Your task to perform on an android device: turn on javascript in the chrome app Image 0: 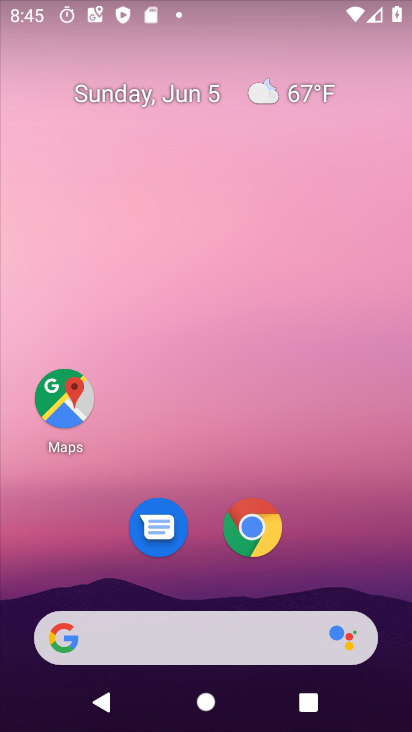
Step 0: click (256, 537)
Your task to perform on an android device: turn on javascript in the chrome app Image 1: 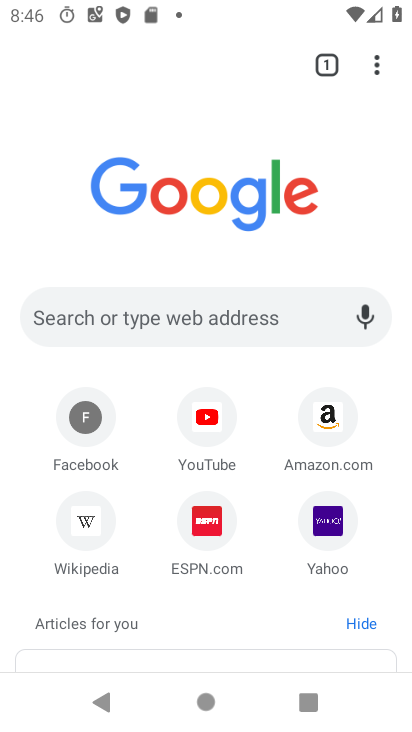
Step 1: click (377, 68)
Your task to perform on an android device: turn on javascript in the chrome app Image 2: 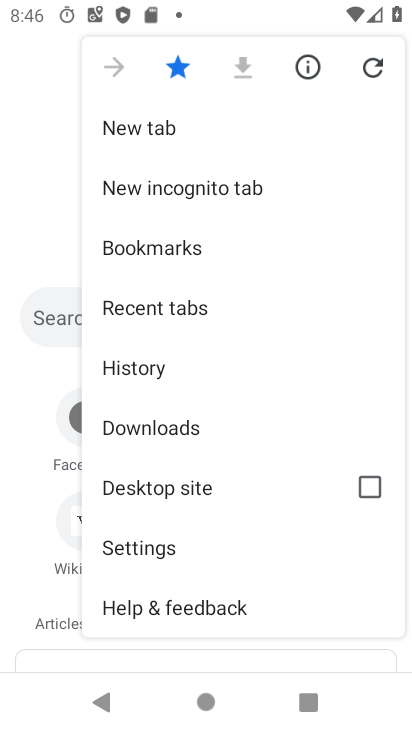
Step 2: click (151, 551)
Your task to perform on an android device: turn on javascript in the chrome app Image 3: 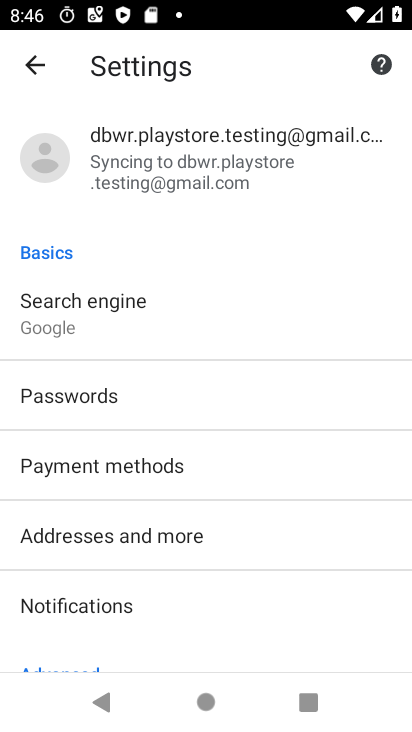
Step 3: drag from (196, 660) to (192, 230)
Your task to perform on an android device: turn on javascript in the chrome app Image 4: 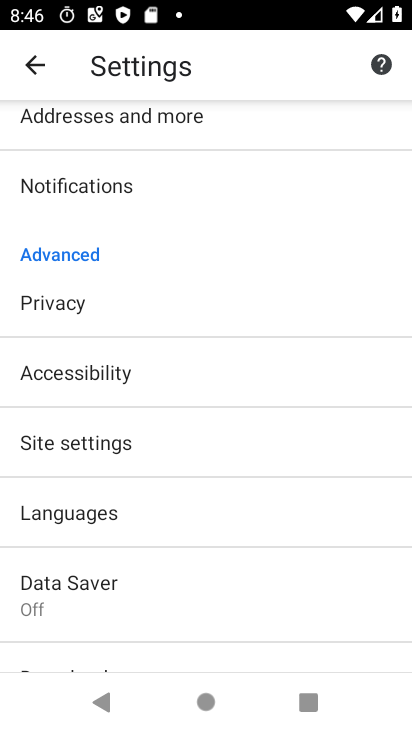
Step 4: click (53, 440)
Your task to perform on an android device: turn on javascript in the chrome app Image 5: 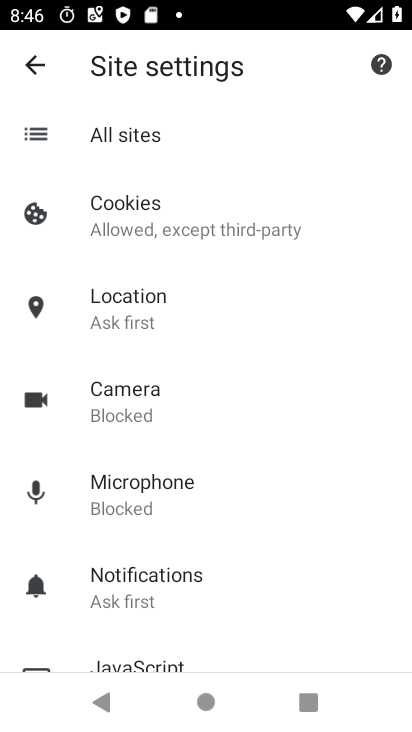
Step 5: drag from (247, 635) to (243, 327)
Your task to perform on an android device: turn on javascript in the chrome app Image 6: 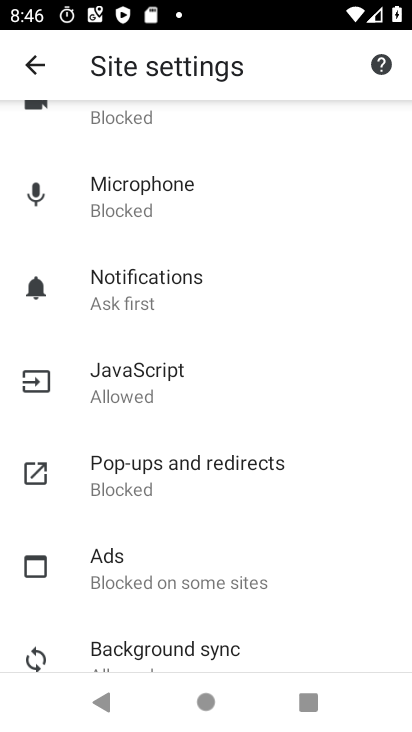
Step 6: click (113, 383)
Your task to perform on an android device: turn on javascript in the chrome app Image 7: 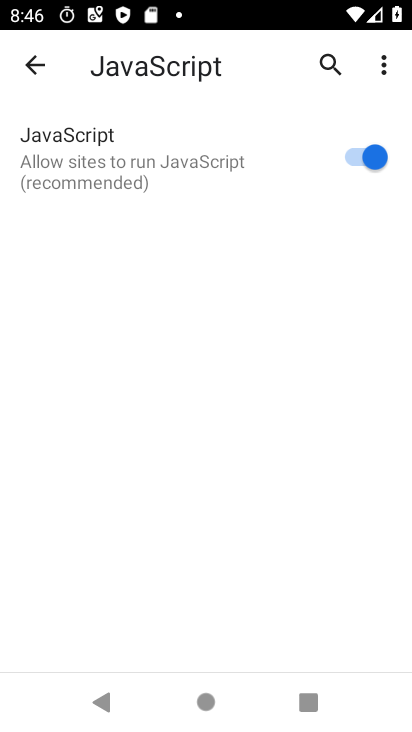
Step 7: task complete